Your task to perform on an android device: What's on my calendar tomorrow? Image 0: 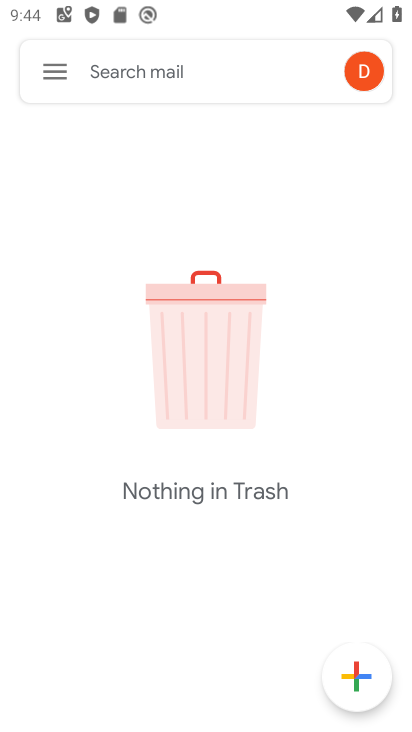
Step 0: press home button
Your task to perform on an android device: What's on my calendar tomorrow? Image 1: 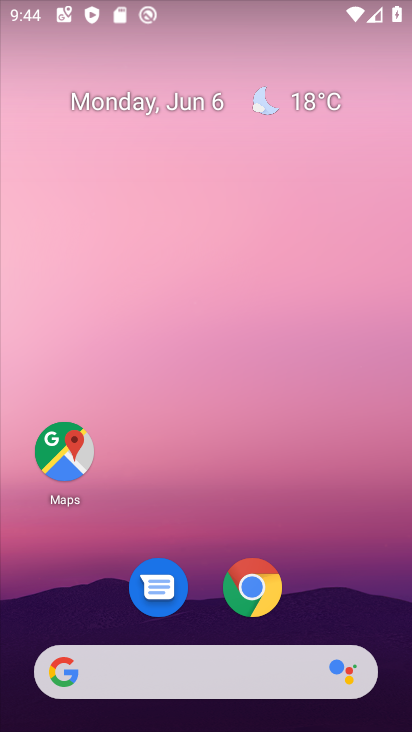
Step 1: drag from (353, 548) to (349, 85)
Your task to perform on an android device: What's on my calendar tomorrow? Image 2: 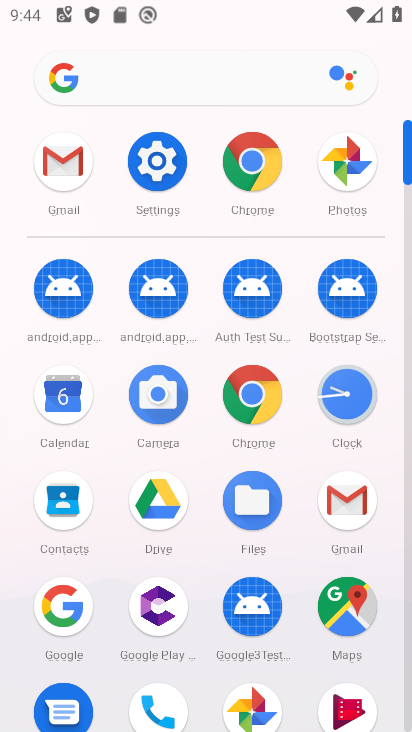
Step 2: click (63, 420)
Your task to perform on an android device: What's on my calendar tomorrow? Image 3: 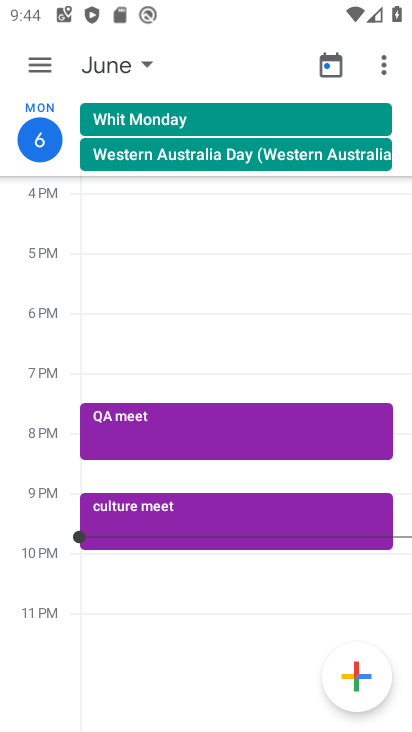
Step 3: drag from (49, 417) to (141, 48)
Your task to perform on an android device: What's on my calendar tomorrow? Image 4: 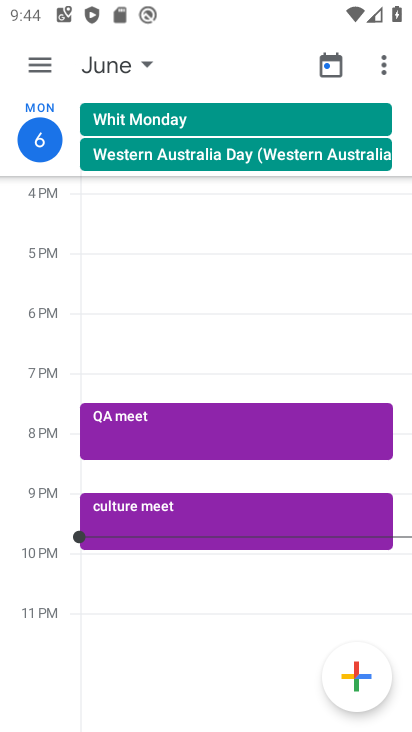
Step 4: click (47, 138)
Your task to perform on an android device: What's on my calendar tomorrow? Image 5: 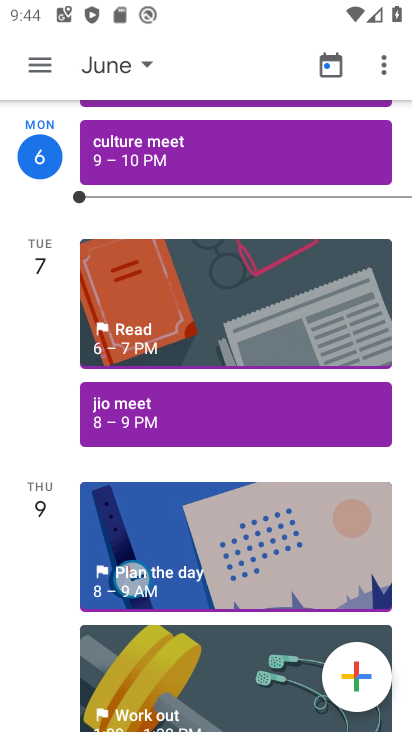
Step 5: click (46, 283)
Your task to perform on an android device: What's on my calendar tomorrow? Image 6: 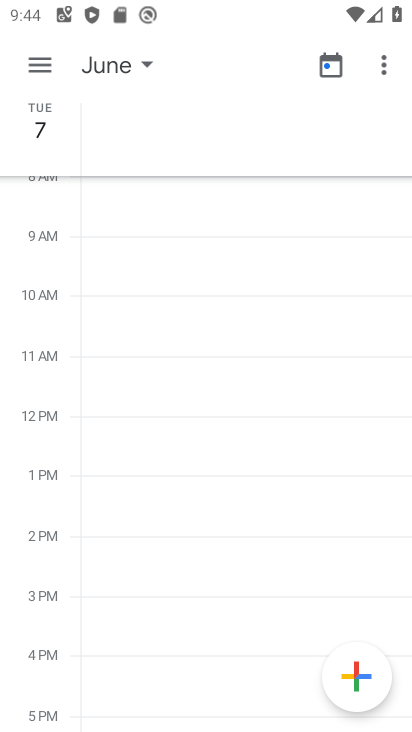
Step 6: task complete